Your task to perform on an android device: Clear the shopping cart on bestbuy. Image 0: 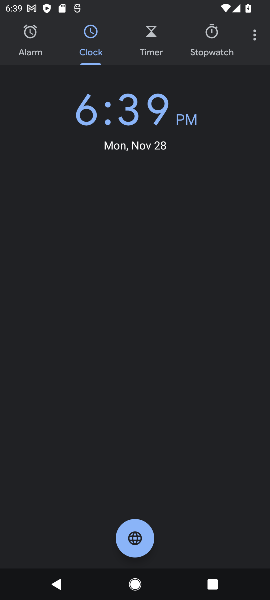
Step 0: press home button
Your task to perform on an android device: Clear the shopping cart on bestbuy. Image 1: 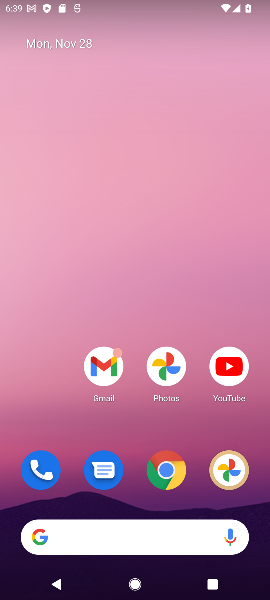
Step 1: click (130, 533)
Your task to perform on an android device: Clear the shopping cart on bestbuy. Image 2: 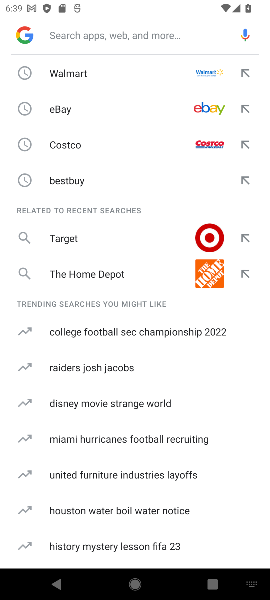
Step 2: click (92, 179)
Your task to perform on an android device: Clear the shopping cart on bestbuy. Image 3: 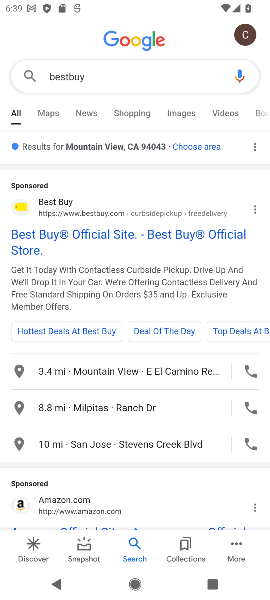
Step 3: click (51, 202)
Your task to perform on an android device: Clear the shopping cart on bestbuy. Image 4: 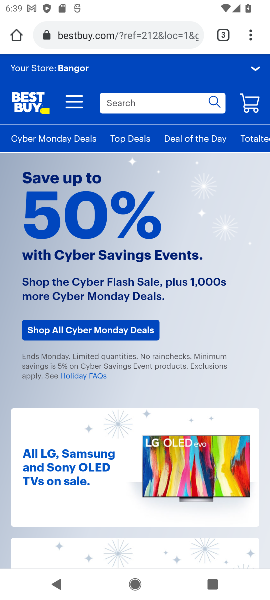
Step 4: click (250, 110)
Your task to perform on an android device: Clear the shopping cart on bestbuy. Image 5: 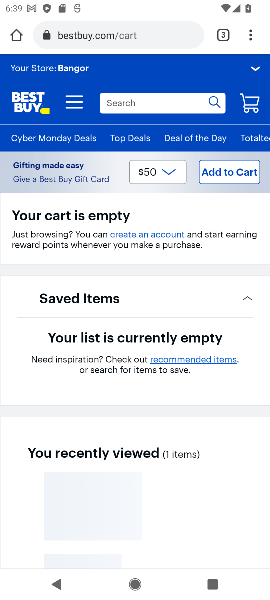
Step 5: task complete